Your task to perform on an android device: Open settings Image 0: 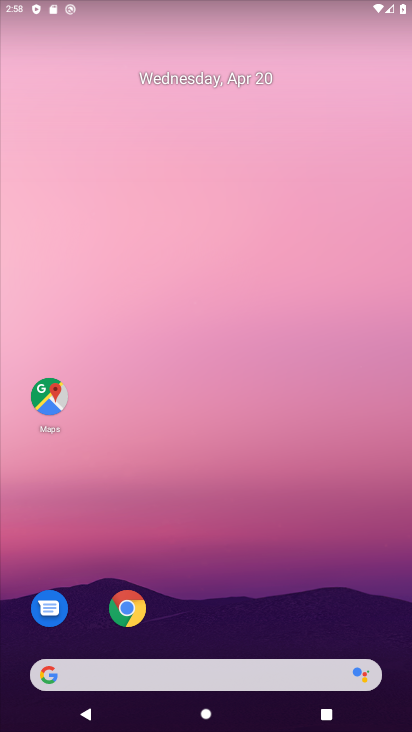
Step 0: drag from (205, 651) to (240, 11)
Your task to perform on an android device: Open settings Image 1: 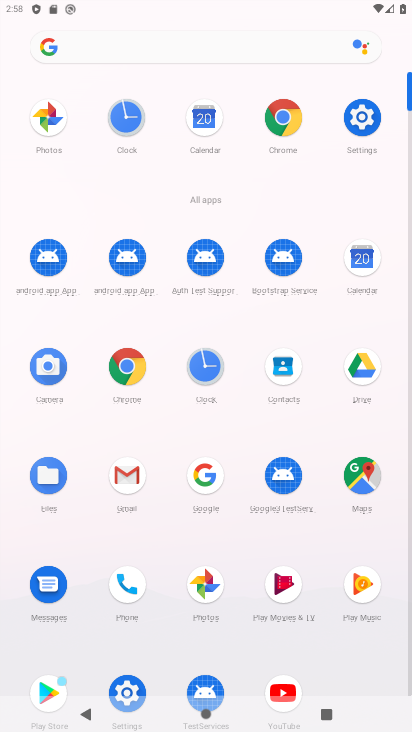
Step 1: click (364, 134)
Your task to perform on an android device: Open settings Image 2: 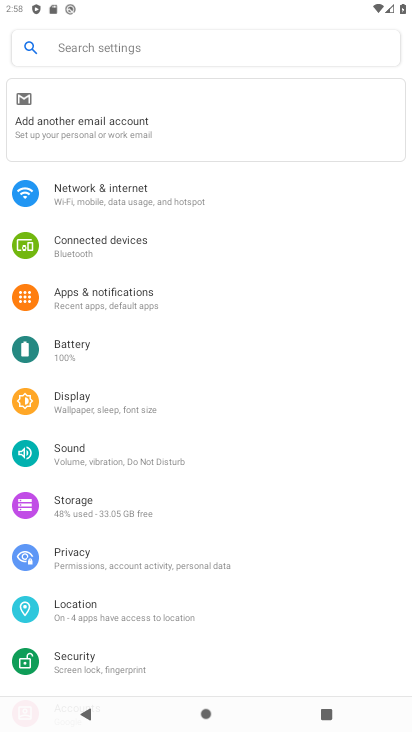
Step 2: task complete